Your task to perform on an android device: Open Amazon Image 0: 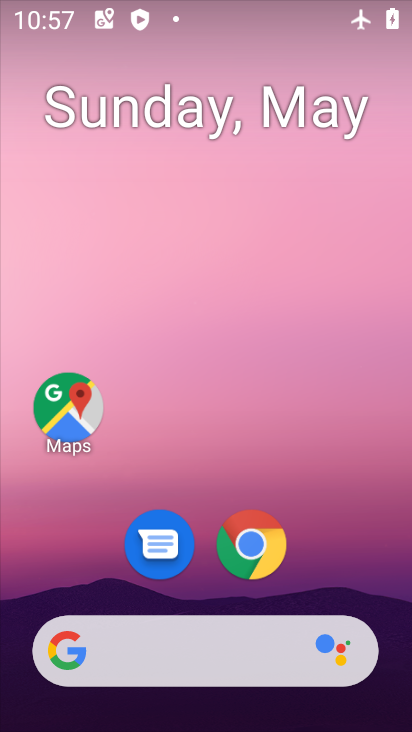
Step 0: click (261, 544)
Your task to perform on an android device: Open Amazon Image 1: 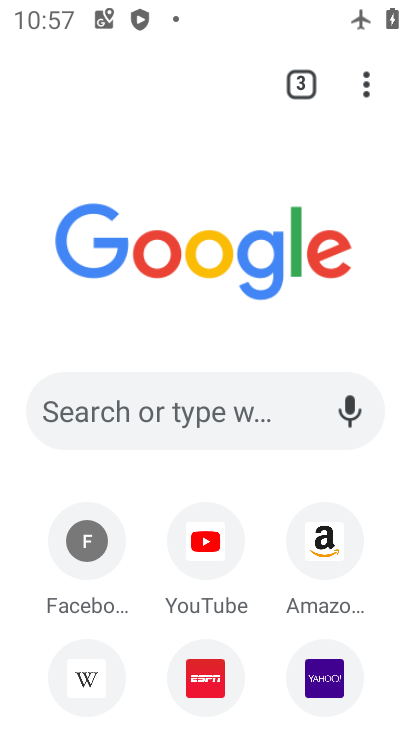
Step 1: click (319, 553)
Your task to perform on an android device: Open Amazon Image 2: 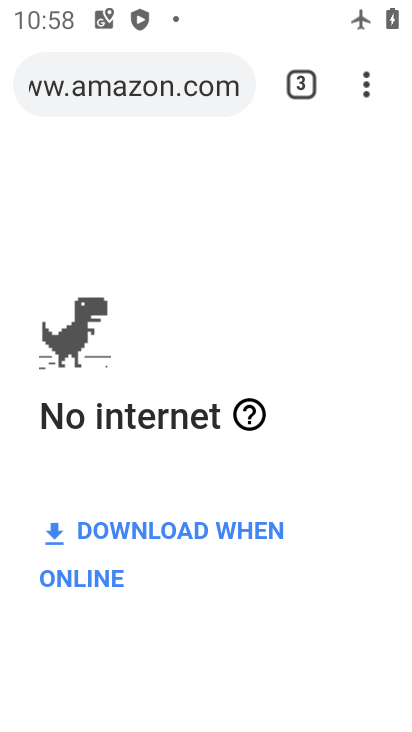
Step 2: task complete